Your task to perform on an android device: set an alarm Image 0: 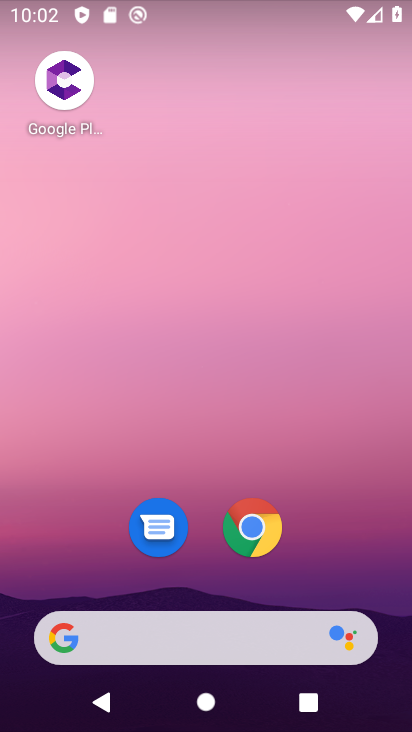
Step 0: drag from (178, 625) to (93, 5)
Your task to perform on an android device: set an alarm Image 1: 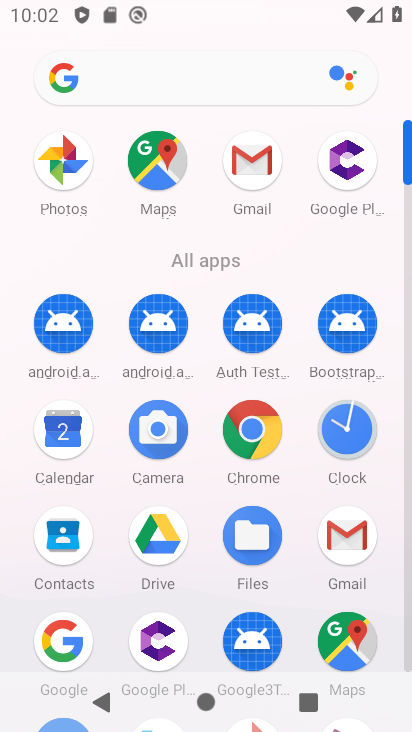
Step 1: click (333, 434)
Your task to perform on an android device: set an alarm Image 2: 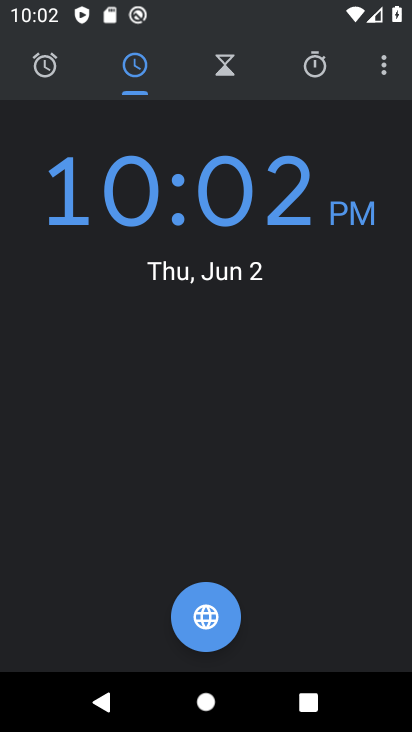
Step 2: click (51, 81)
Your task to perform on an android device: set an alarm Image 3: 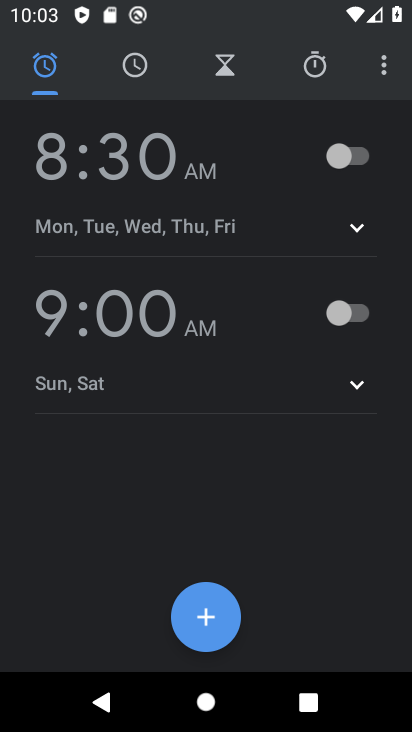
Step 3: click (208, 596)
Your task to perform on an android device: set an alarm Image 4: 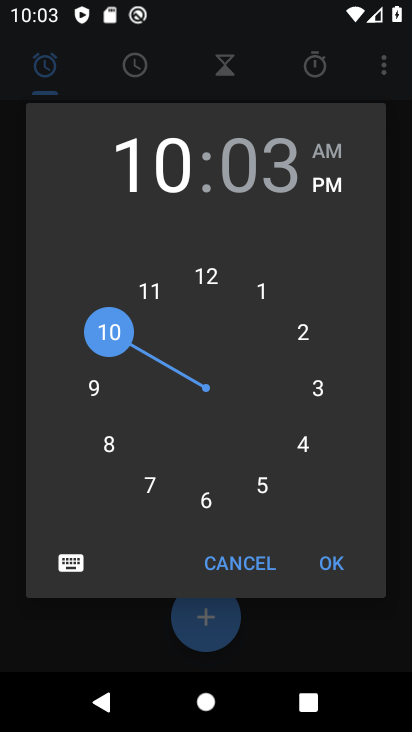
Step 4: click (338, 574)
Your task to perform on an android device: set an alarm Image 5: 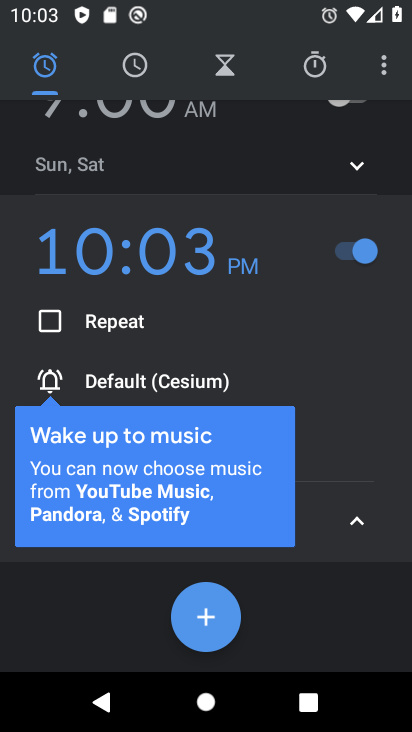
Step 5: task complete